Your task to perform on an android device: open device folders in google photos Image 0: 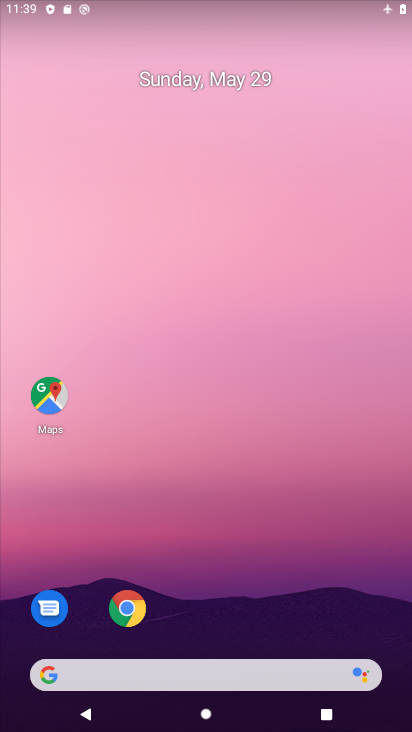
Step 0: drag from (216, 650) to (251, 625)
Your task to perform on an android device: open device folders in google photos Image 1: 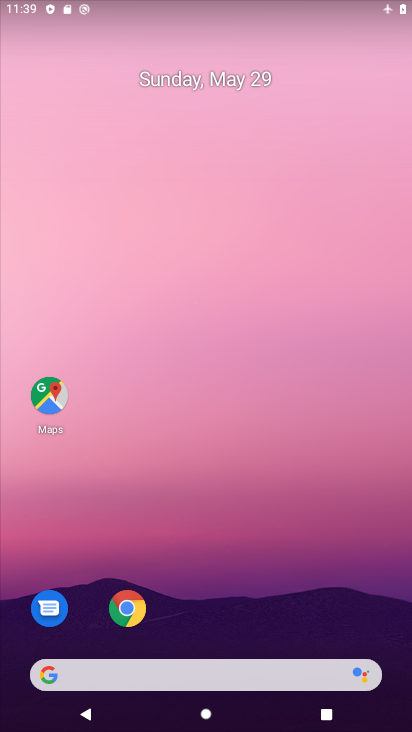
Step 1: drag from (217, 673) to (201, 86)
Your task to perform on an android device: open device folders in google photos Image 2: 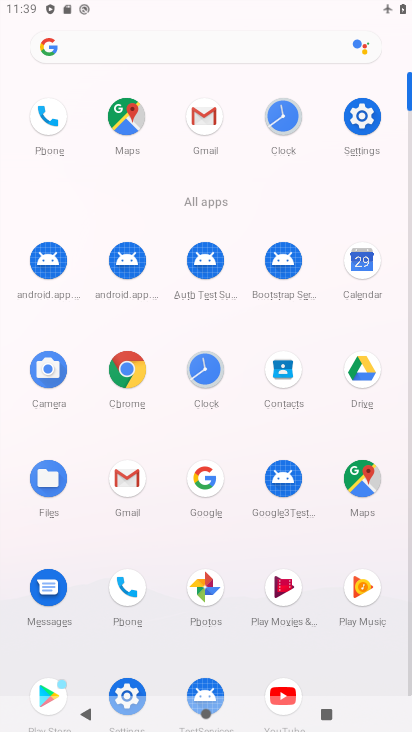
Step 2: click (209, 596)
Your task to perform on an android device: open device folders in google photos Image 3: 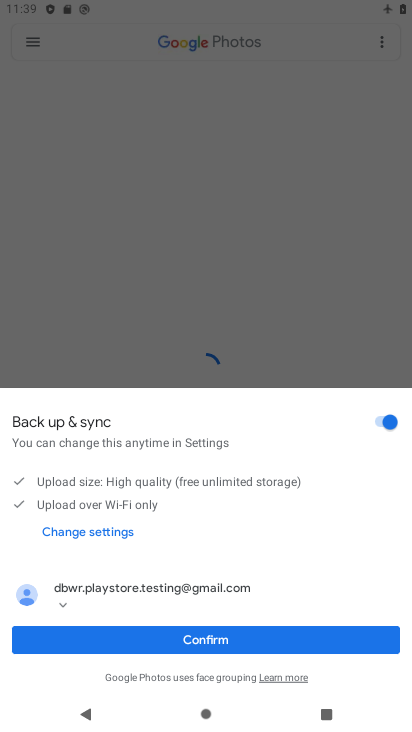
Step 3: click (131, 627)
Your task to perform on an android device: open device folders in google photos Image 4: 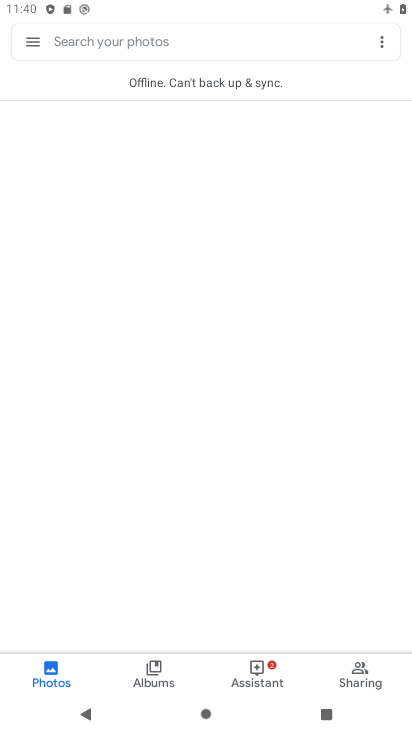
Step 4: click (24, 44)
Your task to perform on an android device: open device folders in google photos Image 5: 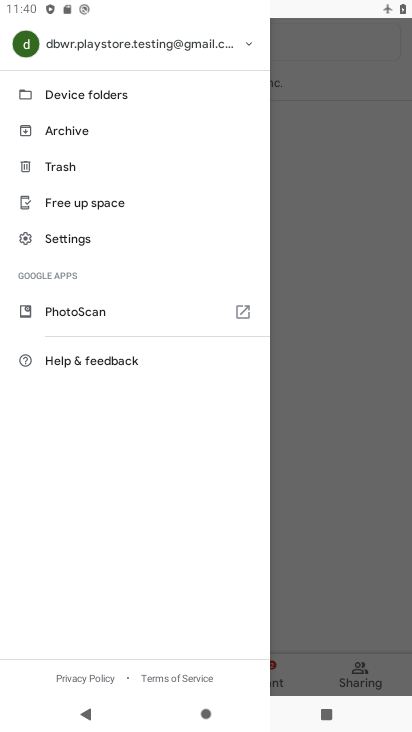
Step 5: click (64, 92)
Your task to perform on an android device: open device folders in google photos Image 6: 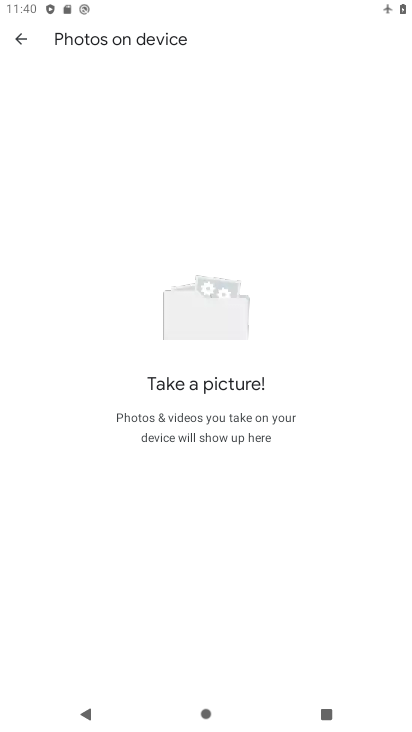
Step 6: task complete